Your task to perform on an android device: Go to Wikipedia Image 0: 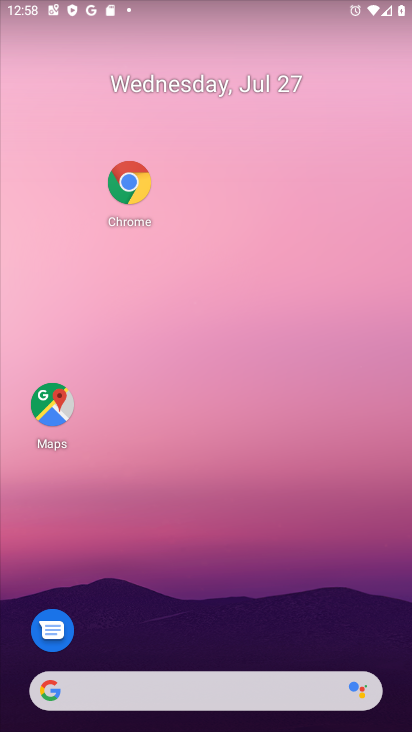
Step 0: click (126, 690)
Your task to perform on an android device: Go to Wikipedia Image 1: 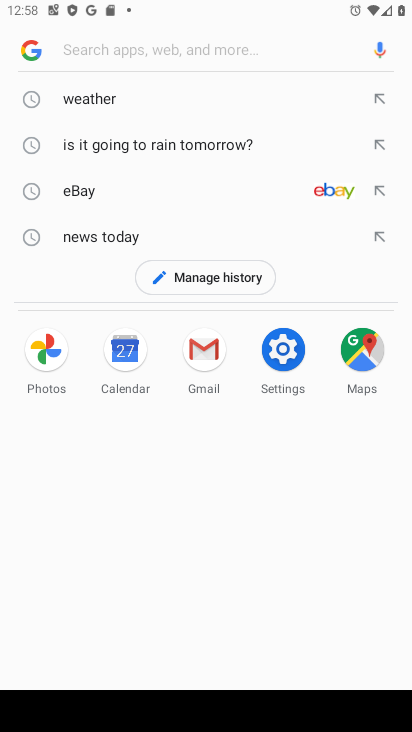
Step 1: type "wikipedia "
Your task to perform on an android device: Go to Wikipedia Image 2: 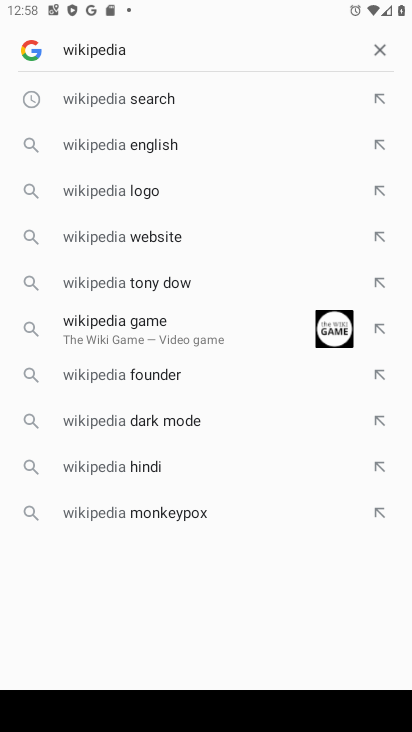
Step 2: press enter
Your task to perform on an android device: Go to Wikipedia Image 3: 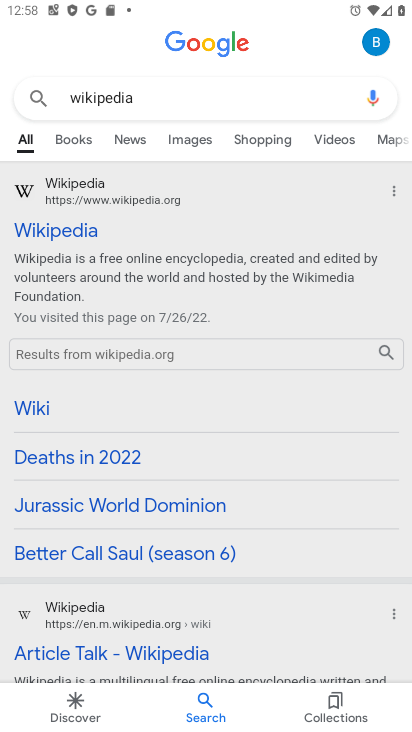
Step 3: click (118, 188)
Your task to perform on an android device: Go to Wikipedia Image 4: 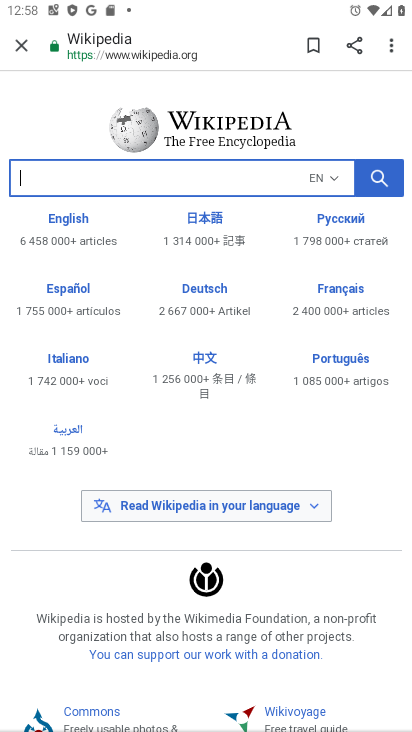
Step 4: task complete